Your task to perform on an android device: toggle wifi Image 0: 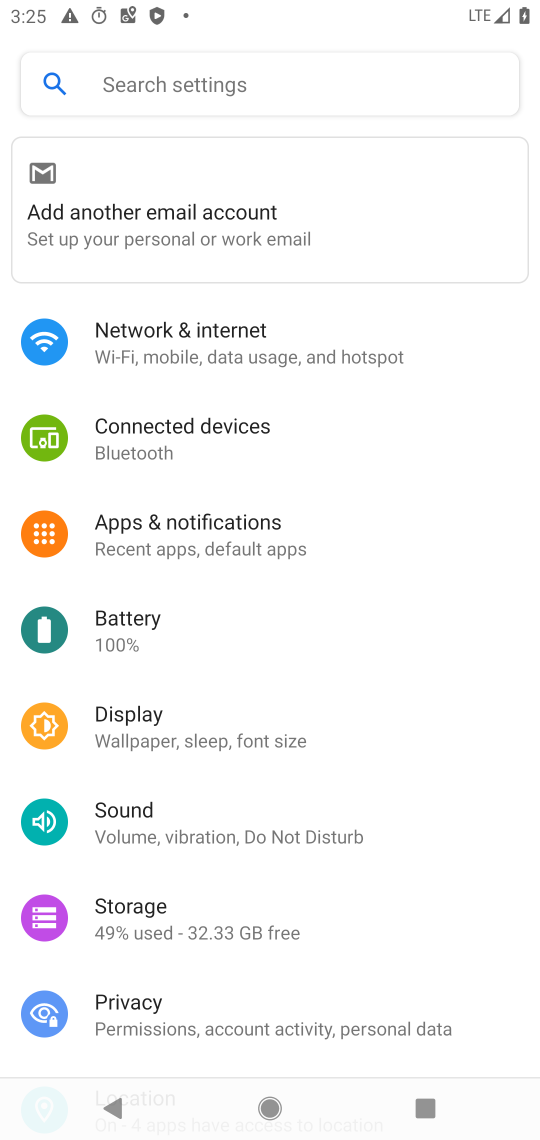
Step 0: click (227, 322)
Your task to perform on an android device: toggle wifi Image 1: 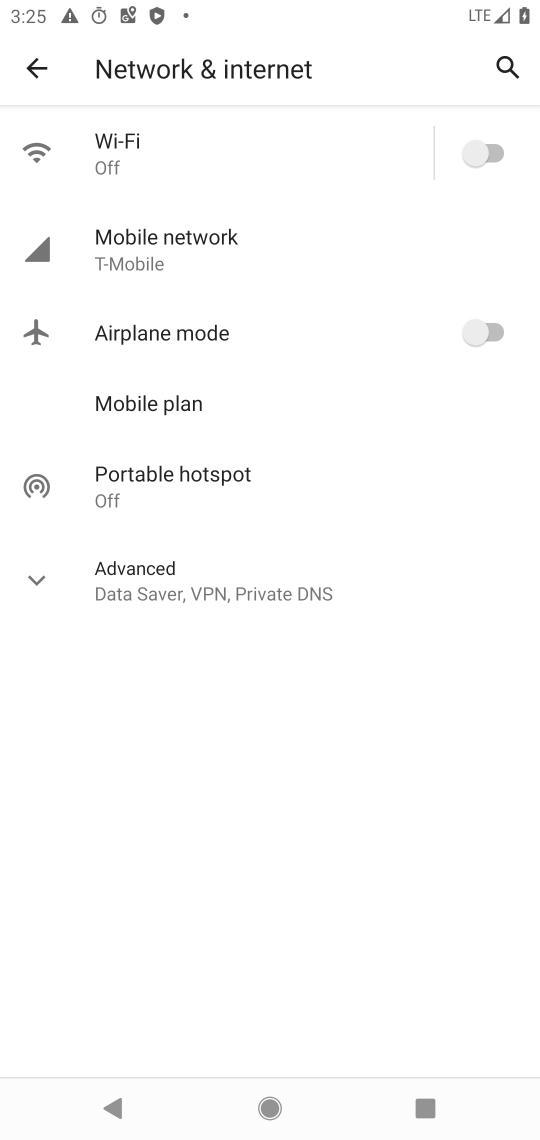
Step 1: click (476, 146)
Your task to perform on an android device: toggle wifi Image 2: 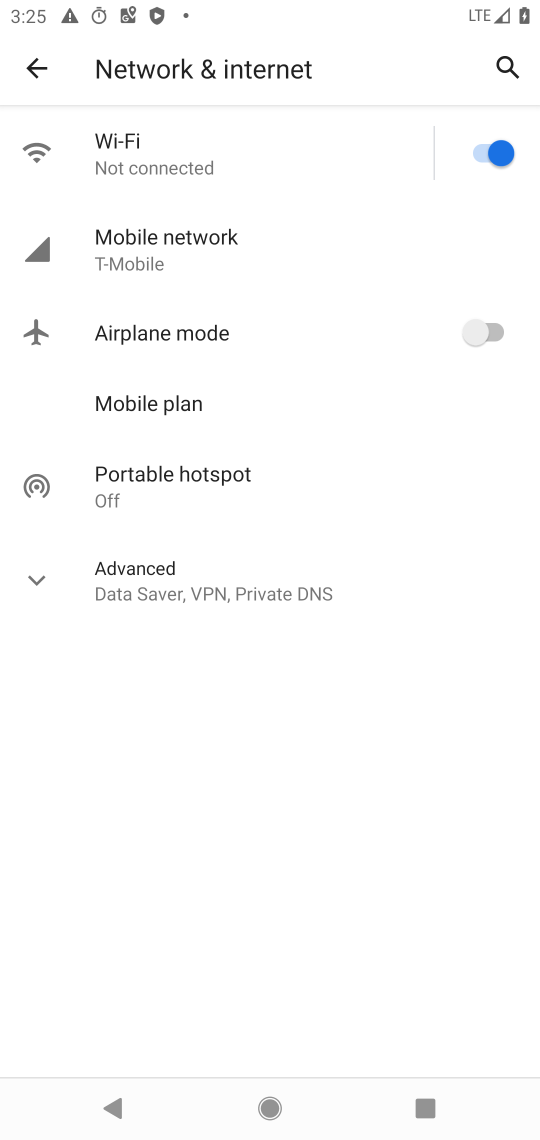
Step 2: task complete